Your task to perform on an android device: toggle location history Image 0: 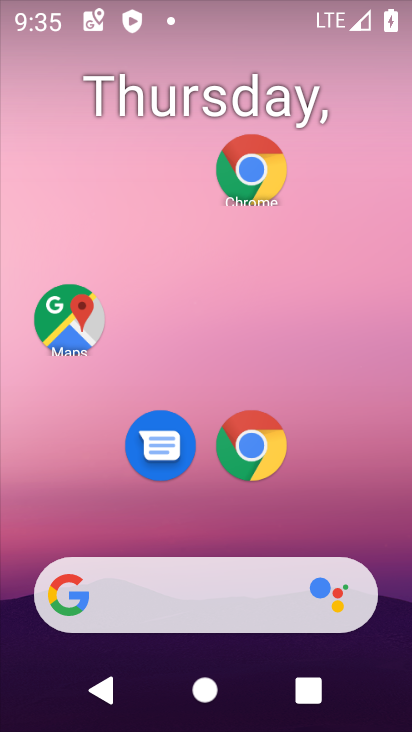
Step 0: drag from (213, 554) to (134, 35)
Your task to perform on an android device: toggle location history Image 1: 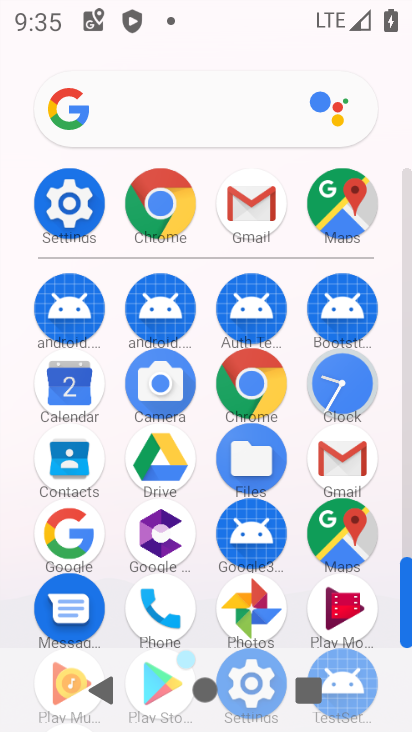
Step 1: click (66, 232)
Your task to perform on an android device: toggle location history Image 2: 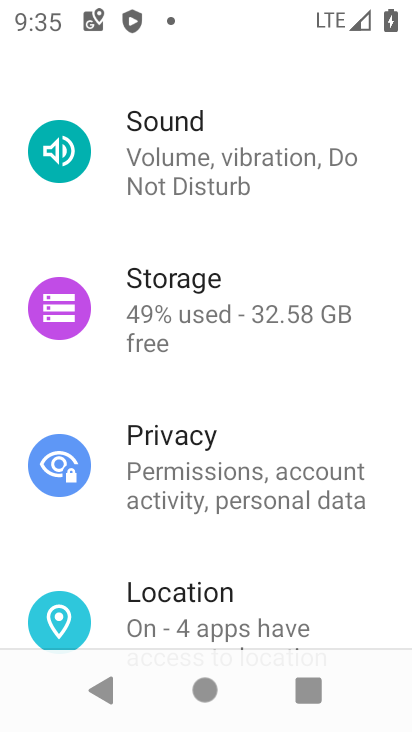
Step 2: click (232, 599)
Your task to perform on an android device: toggle location history Image 3: 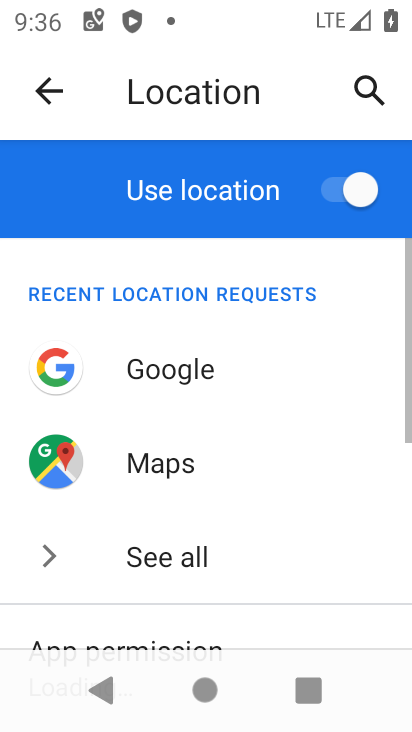
Step 3: drag from (232, 599) to (203, 417)
Your task to perform on an android device: toggle location history Image 4: 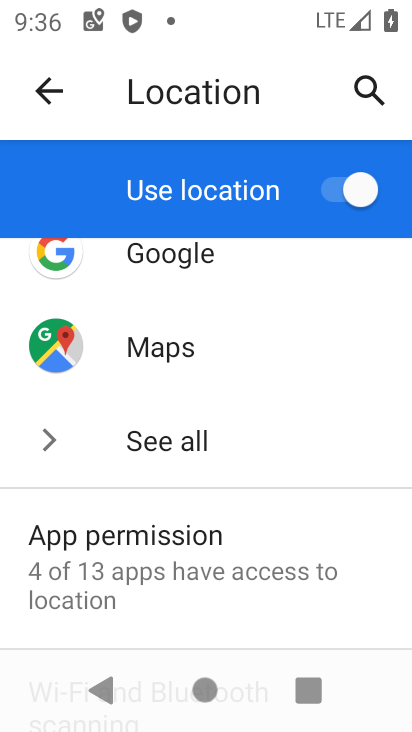
Step 4: drag from (126, 564) to (117, 62)
Your task to perform on an android device: toggle location history Image 5: 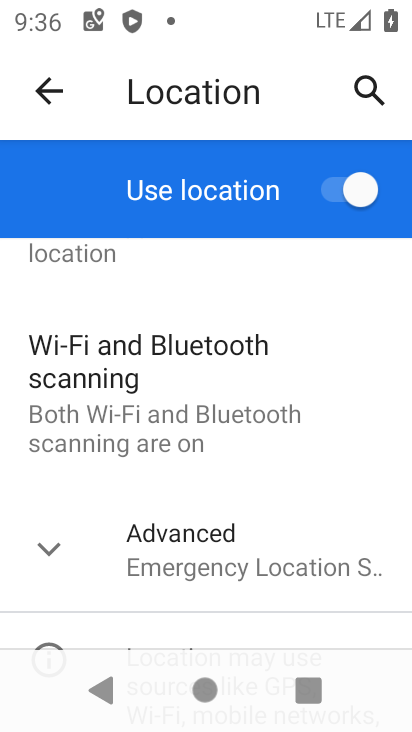
Step 5: click (106, 548)
Your task to perform on an android device: toggle location history Image 6: 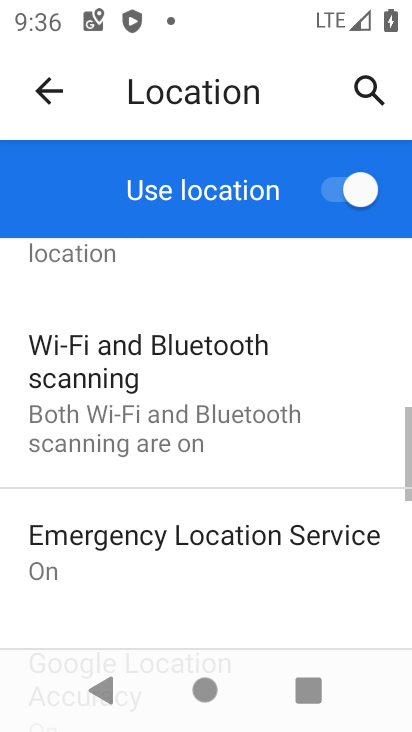
Step 6: drag from (106, 548) to (75, 132)
Your task to perform on an android device: toggle location history Image 7: 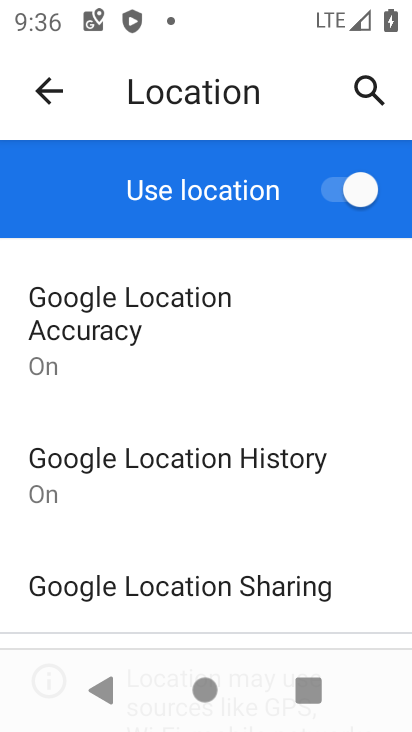
Step 7: click (186, 446)
Your task to perform on an android device: toggle location history Image 8: 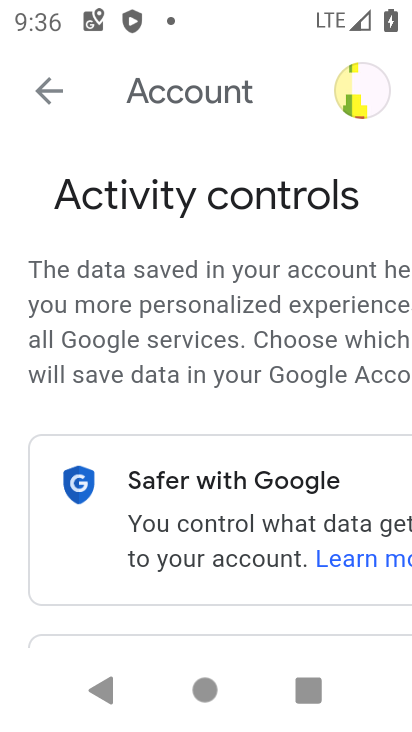
Step 8: drag from (242, 591) to (164, 24)
Your task to perform on an android device: toggle location history Image 9: 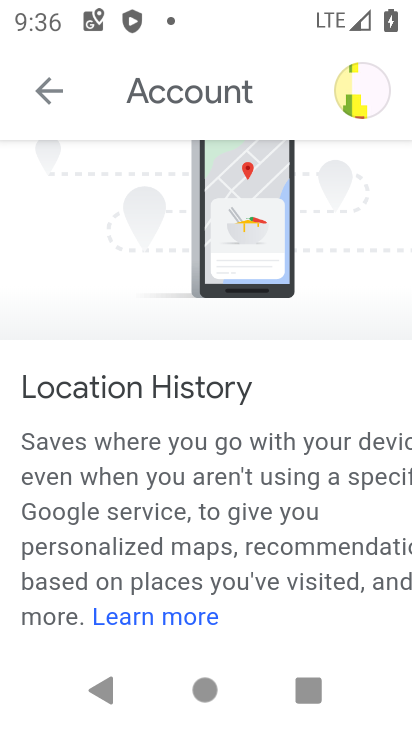
Step 9: drag from (206, 561) to (174, 76)
Your task to perform on an android device: toggle location history Image 10: 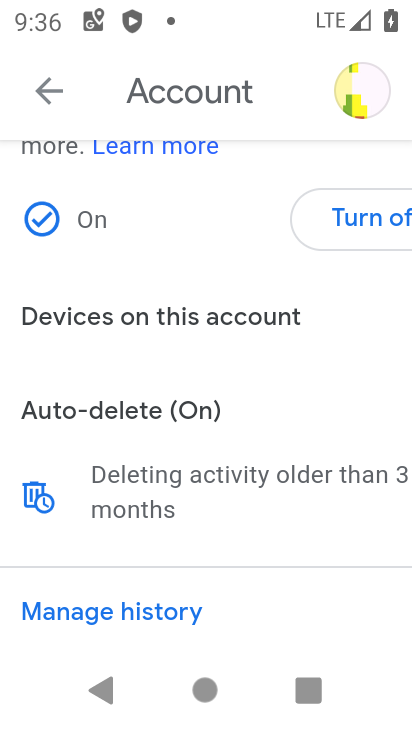
Step 10: click (323, 304)
Your task to perform on an android device: toggle location history Image 11: 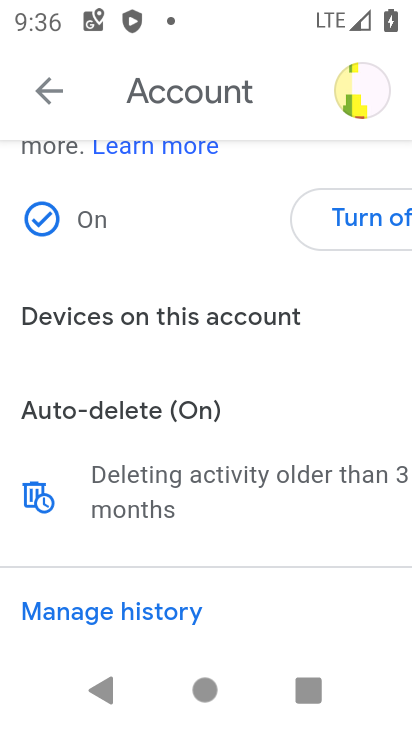
Step 11: click (313, 236)
Your task to perform on an android device: toggle location history Image 12: 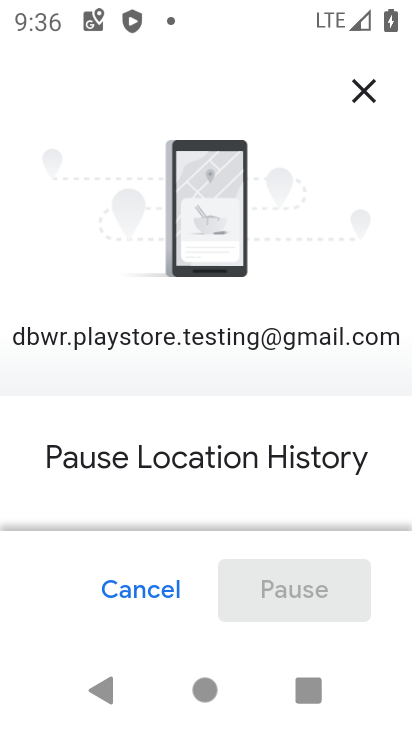
Step 12: drag from (295, 463) to (230, 48)
Your task to perform on an android device: toggle location history Image 13: 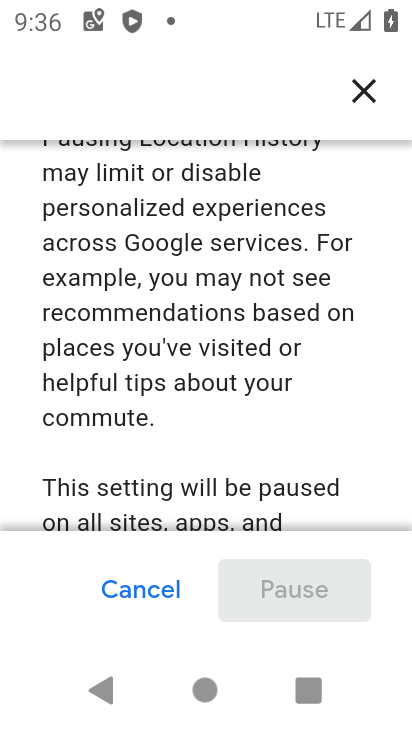
Step 13: drag from (289, 481) to (242, 42)
Your task to perform on an android device: toggle location history Image 14: 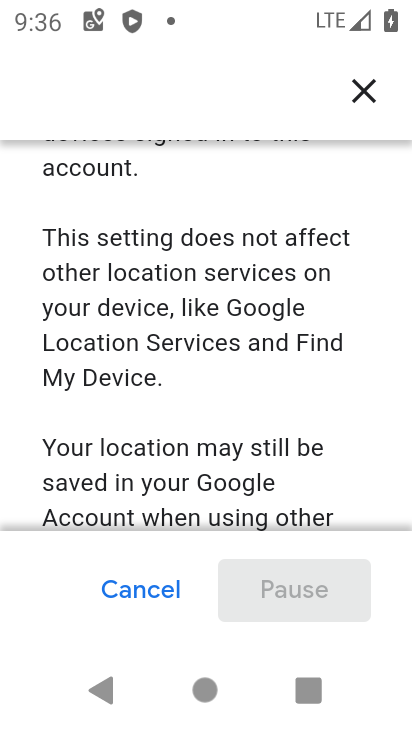
Step 14: drag from (104, 477) to (78, 22)
Your task to perform on an android device: toggle location history Image 15: 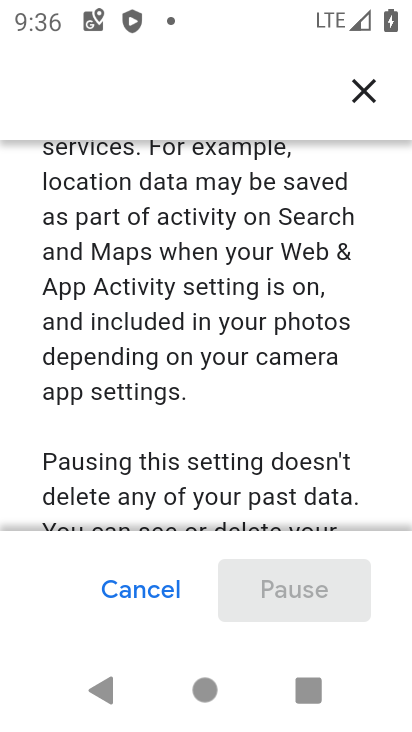
Step 15: drag from (227, 442) to (169, 1)
Your task to perform on an android device: toggle location history Image 16: 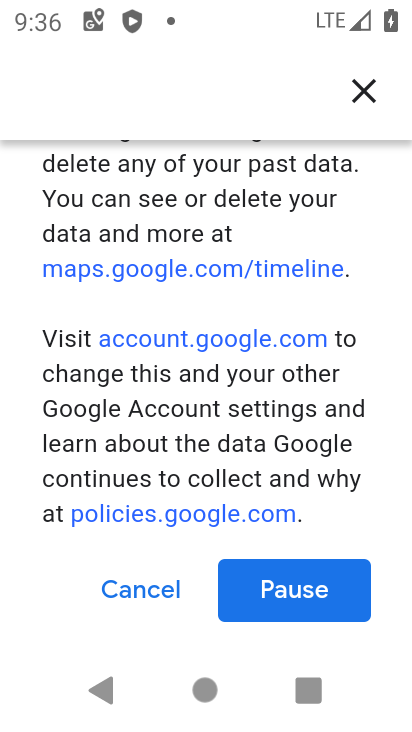
Step 16: click (286, 588)
Your task to perform on an android device: toggle location history Image 17: 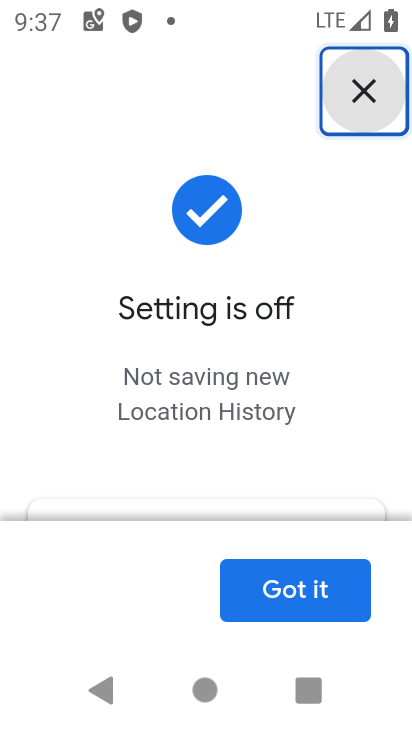
Step 17: click (307, 602)
Your task to perform on an android device: toggle location history Image 18: 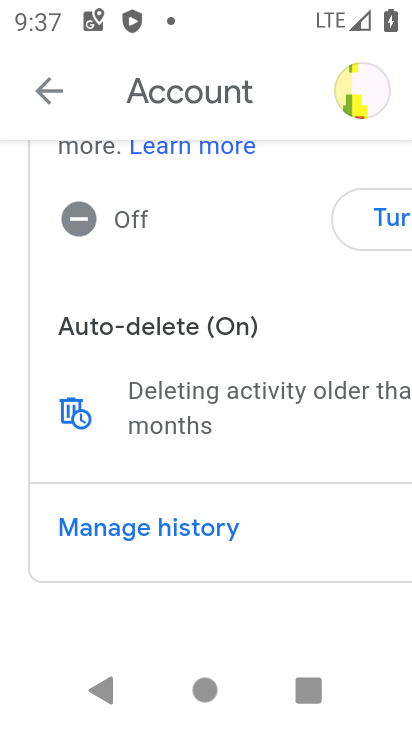
Step 18: task complete